Your task to perform on an android device: Open my contact list Image 0: 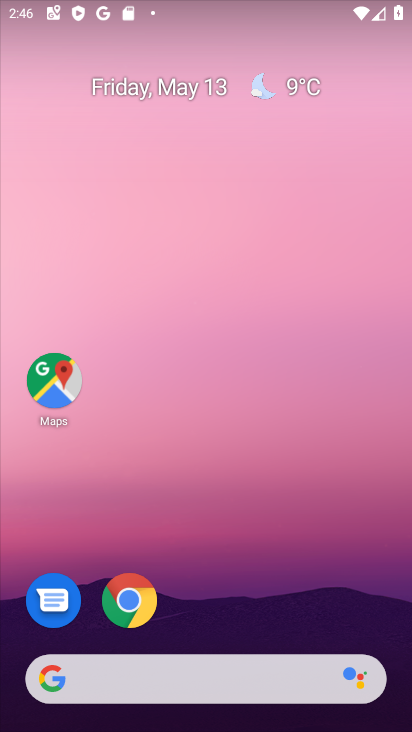
Step 0: drag from (226, 649) to (240, 112)
Your task to perform on an android device: Open my contact list Image 1: 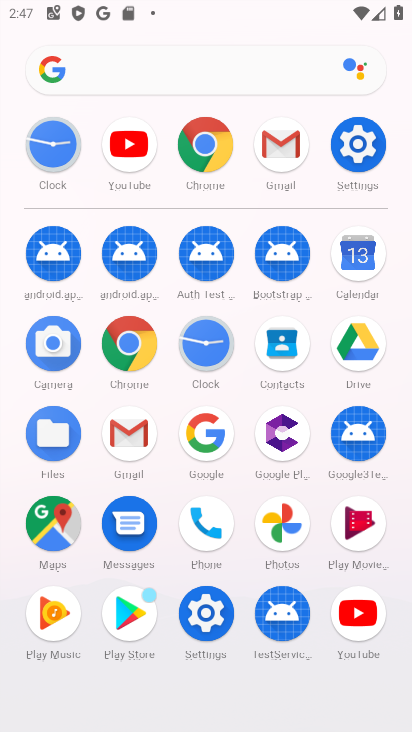
Step 1: click (289, 353)
Your task to perform on an android device: Open my contact list Image 2: 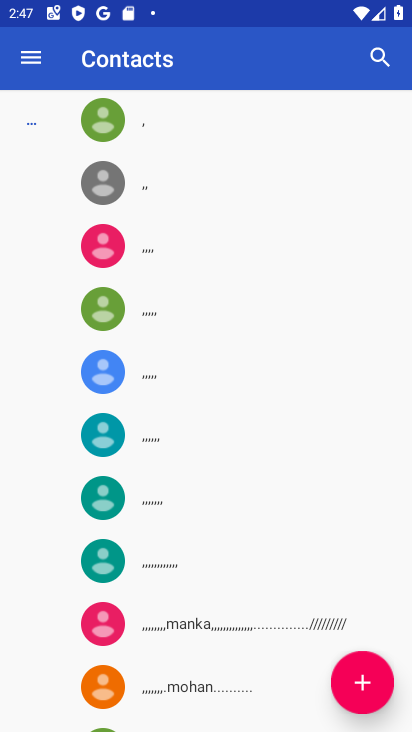
Step 2: task complete